Your task to perform on an android device: What's the weather going to be this weekend? Image 0: 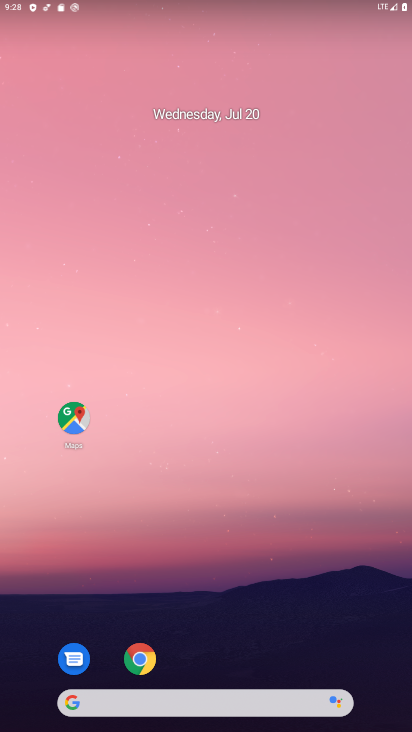
Step 0: click (174, 693)
Your task to perform on an android device: What's the weather going to be this weekend? Image 1: 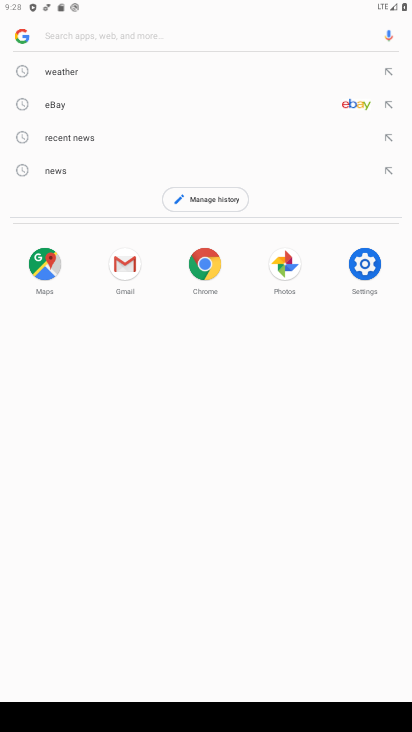
Step 1: type "What's the weather going to be this weekend?"
Your task to perform on an android device: What's the weather going to be this weekend? Image 2: 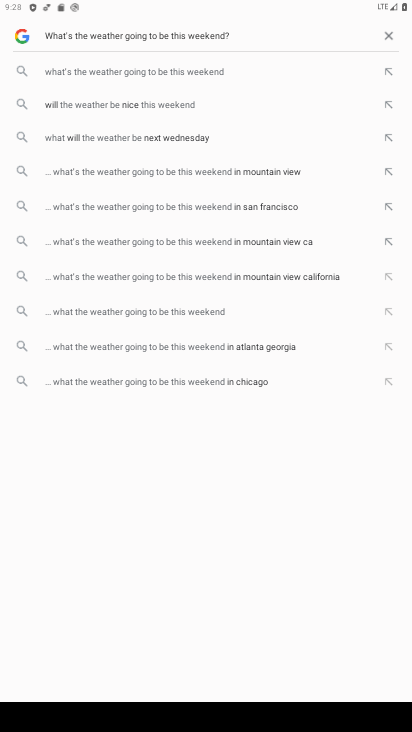
Step 2: click (128, 66)
Your task to perform on an android device: What's the weather going to be this weekend? Image 3: 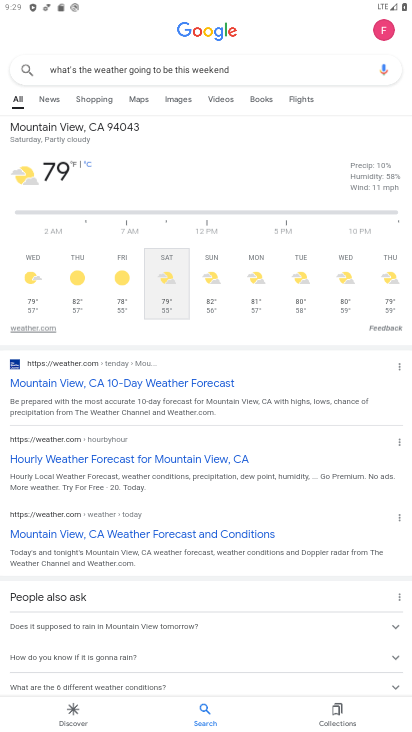
Step 3: click (162, 375)
Your task to perform on an android device: What's the weather going to be this weekend? Image 4: 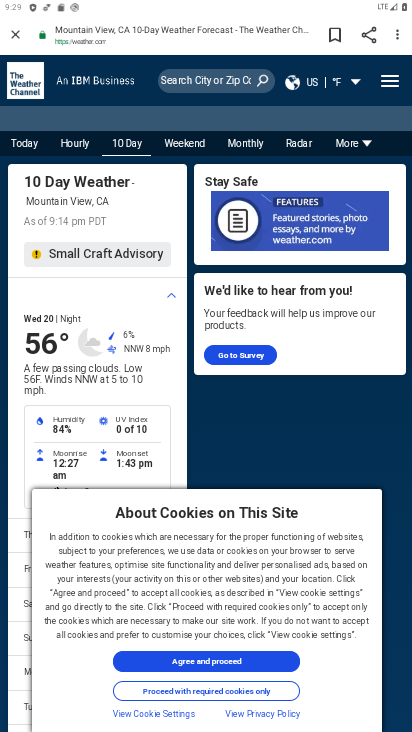
Step 4: task complete